Your task to perform on an android device: Open location settings Image 0: 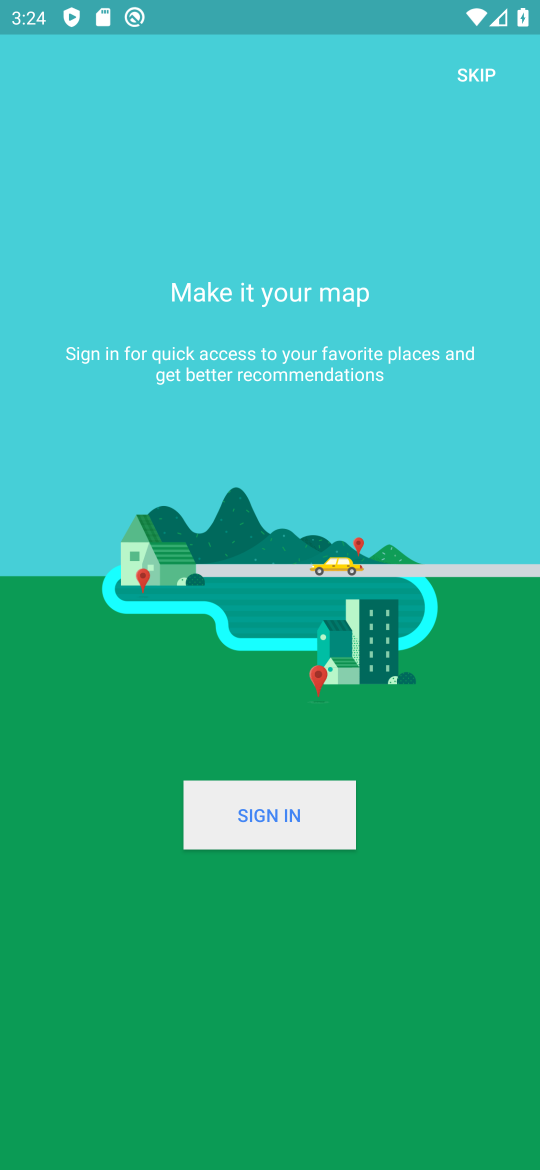
Step 0: press back button
Your task to perform on an android device: Open location settings Image 1: 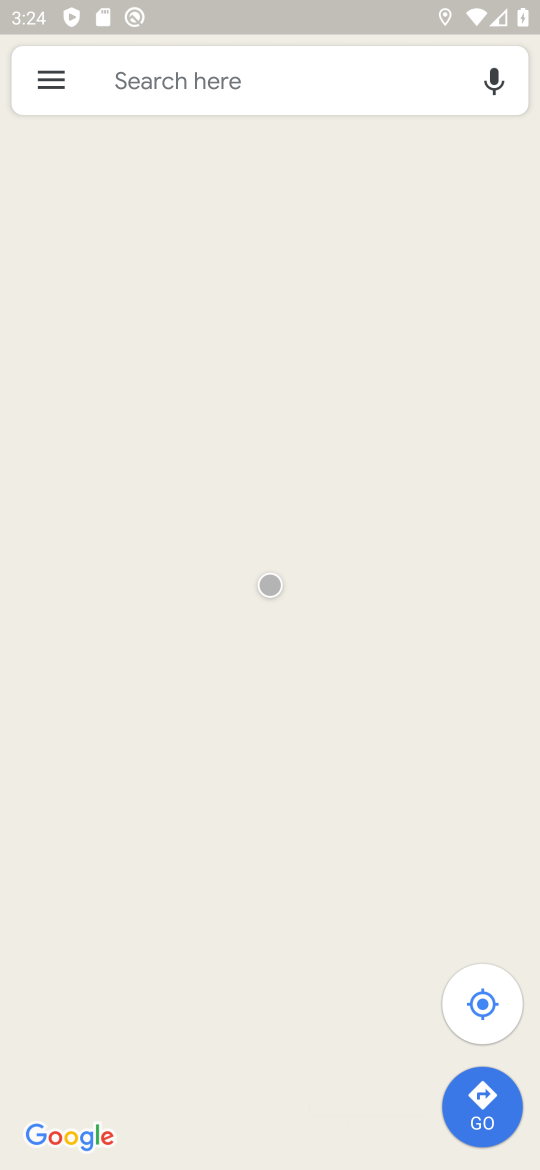
Step 1: press back button
Your task to perform on an android device: Open location settings Image 2: 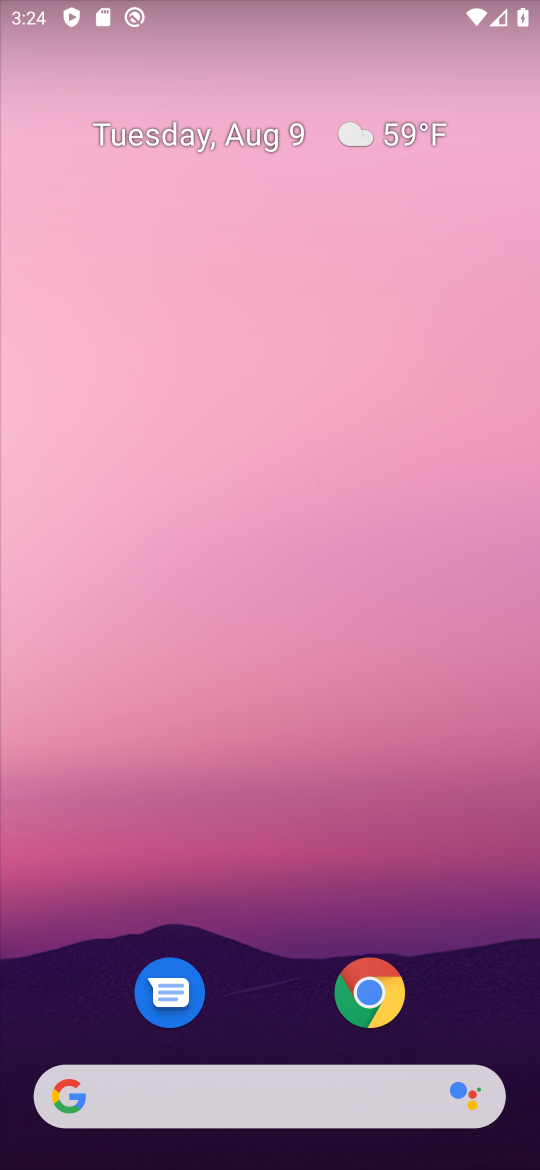
Step 2: drag from (260, 977) to (325, 16)
Your task to perform on an android device: Open location settings Image 3: 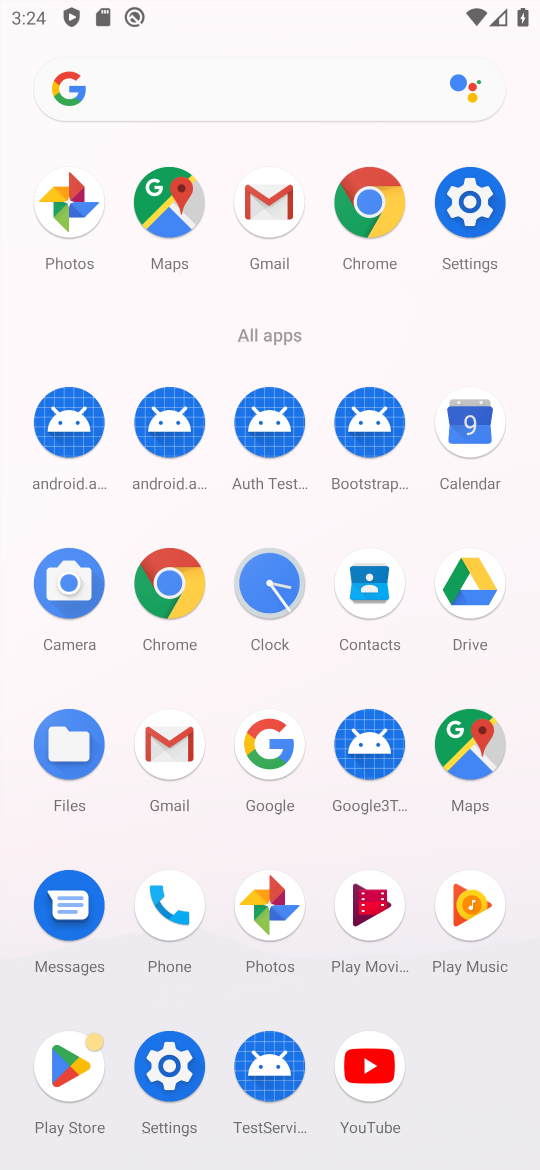
Step 3: click (475, 204)
Your task to perform on an android device: Open location settings Image 4: 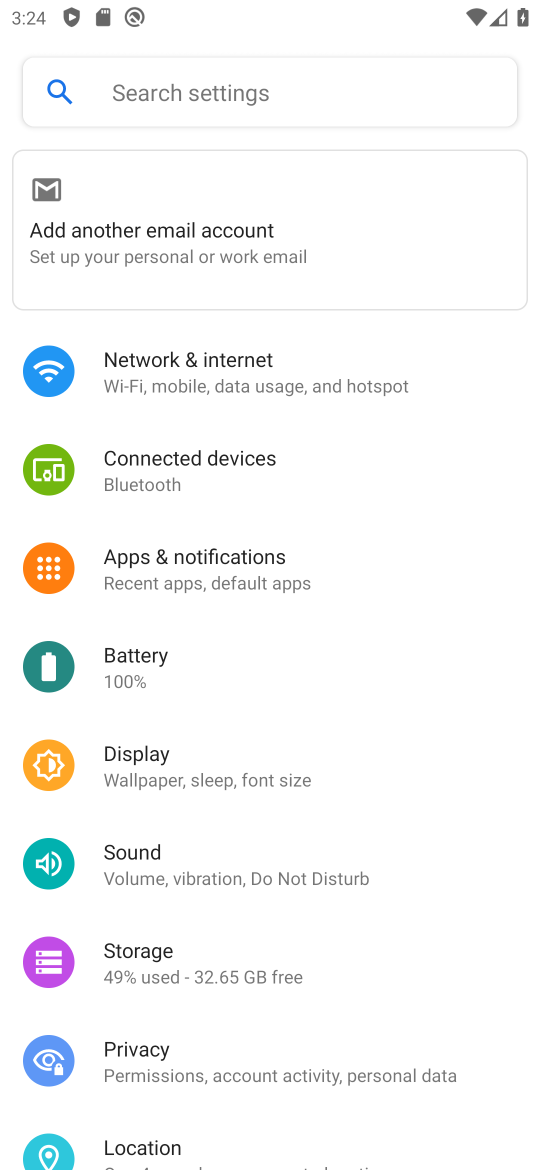
Step 4: click (147, 1140)
Your task to perform on an android device: Open location settings Image 5: 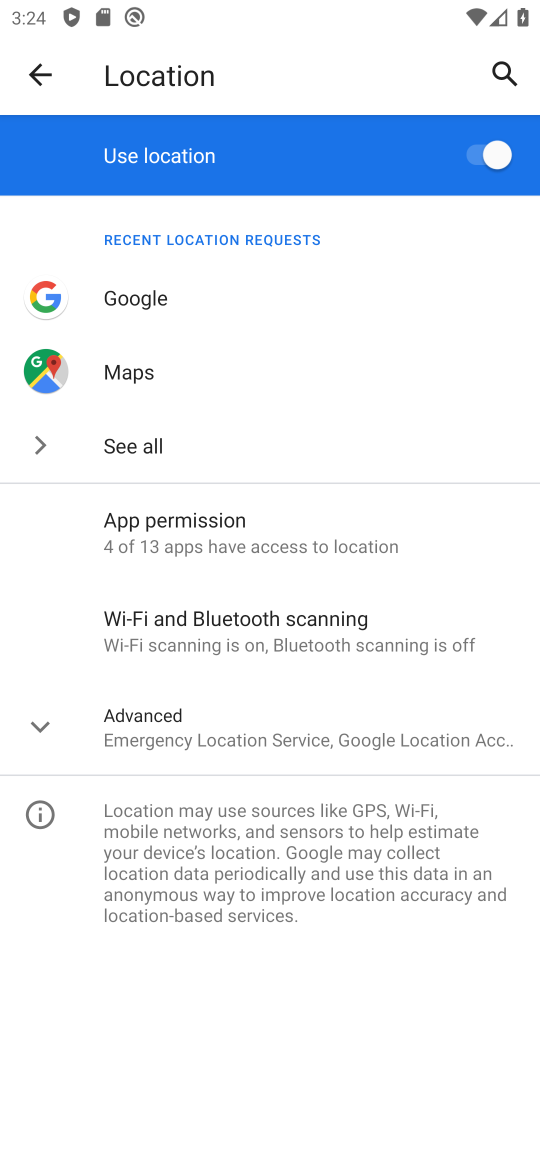
Step 5: task complete